Your task to perform on an android device: turn on sleep mode Image 0: 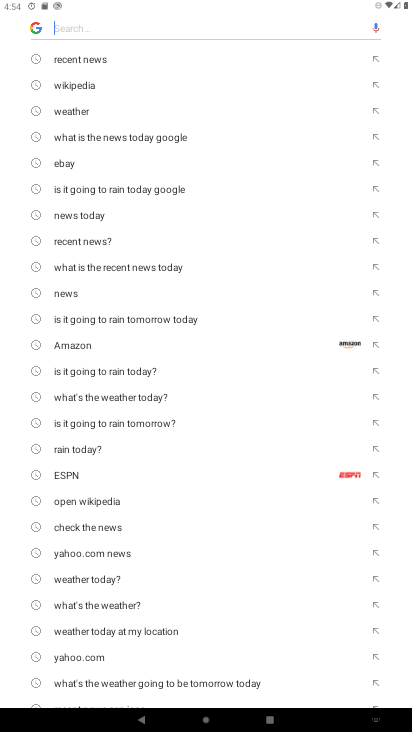
Step 0: press home button
Your task to perform on an android device: turn on sleep mode Image 1: 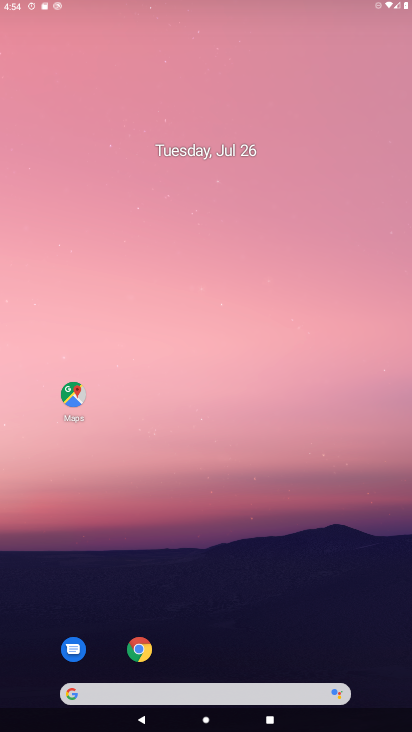
Step 1: task complete